Your task to perform on an android device: toggle wifi Image 0: 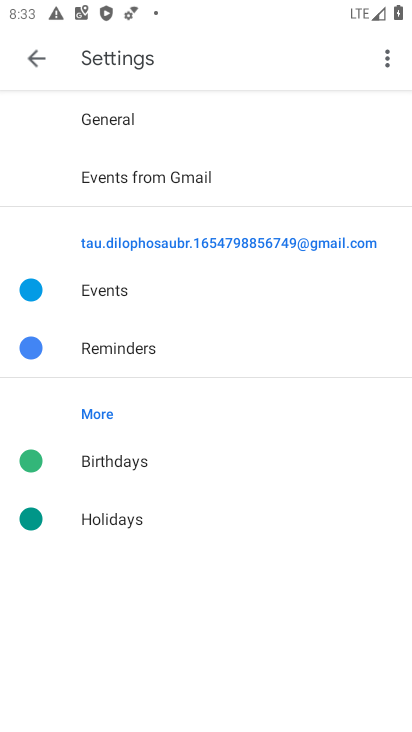
Step 0: press home button
Your task to perform on an android device: toggle wifi Image 1: 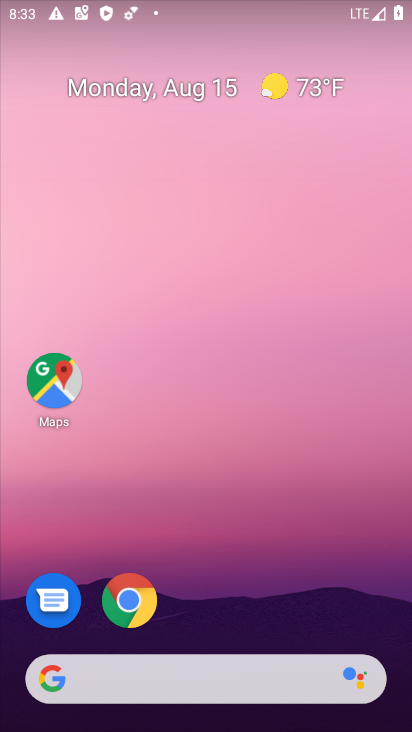
Step 1: drag from (205, 641) to (243, 146)
Your task to perform on an android device: toggle wifi Image 2: 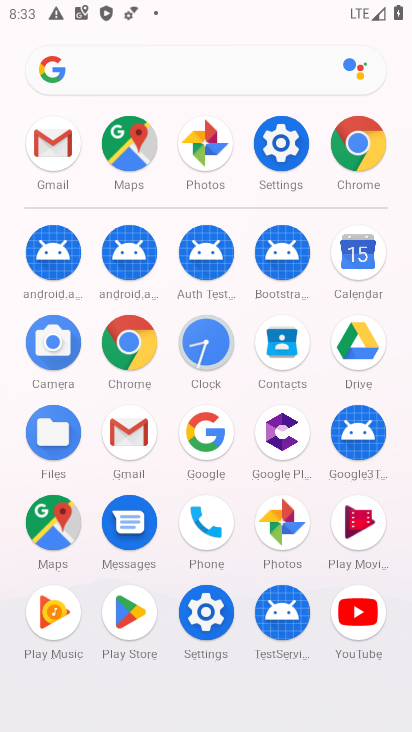
Step 2: click (284, 143)
Your task to perform on an android device: toggle wifi Image 3: 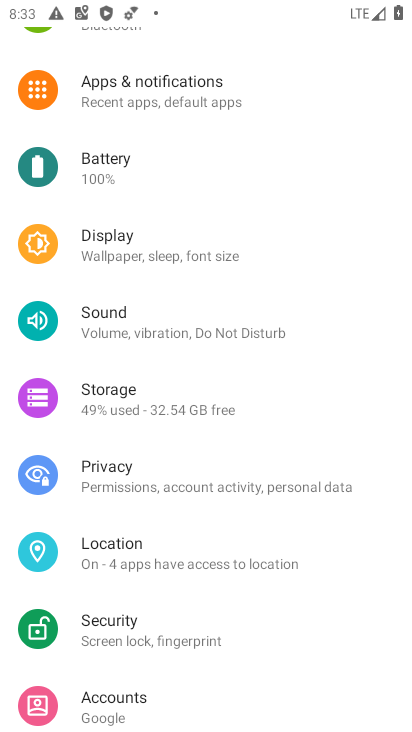
Step 3: drag from (166, 91) to (126, 489)
Your task to perform on an android device: toggle wifi Image 4: 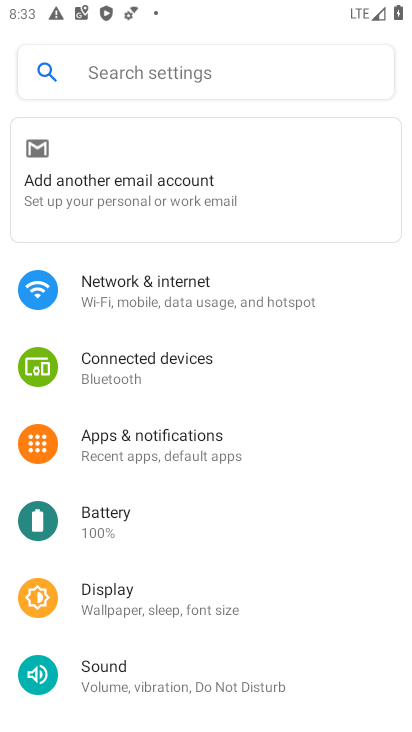
Step 4: click (149, 289)
Your task to perform on an android device: toggle wifi Image 5: 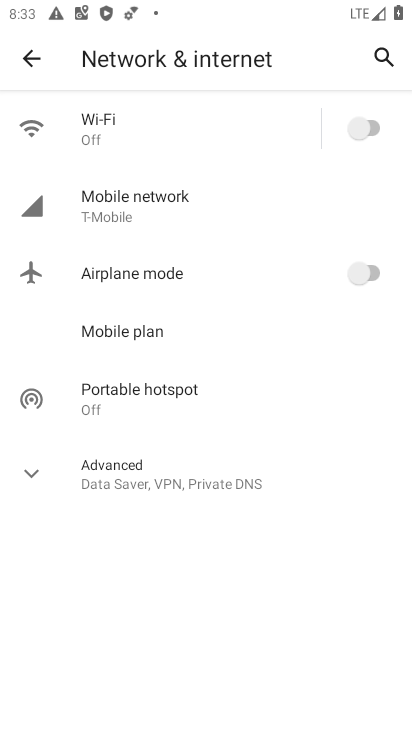
Step 5: click (380, 127)
Your task to perform on an android device: toggle wifi Image 6: 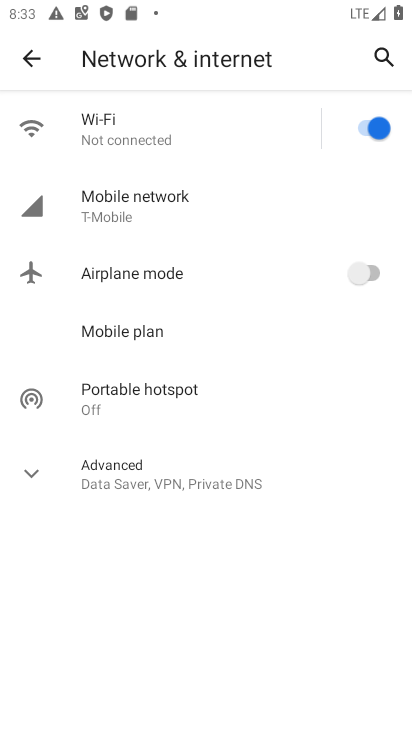
Step 6: task complete